Your task to perform on an android device: move an email to a new category in the gmail app Image 0: 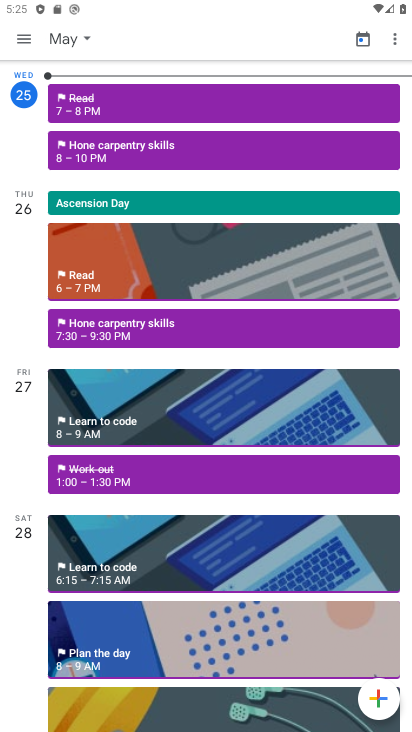
Step 0: press home button
Your task to perform on an android device: move an email to a new category in the gmail app Image 1: 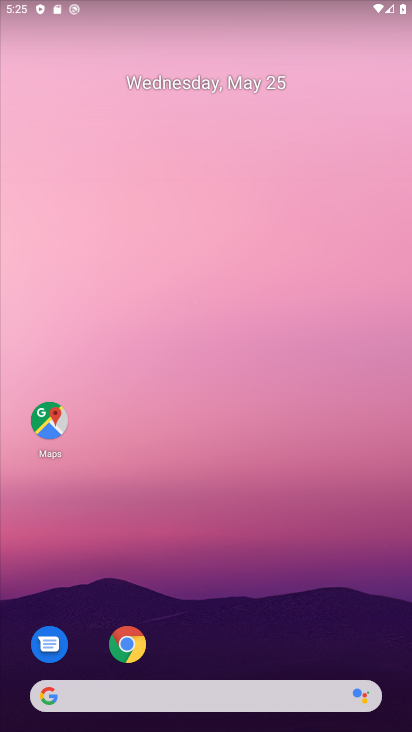
Step 1: drag from (230, 627) to (324, 230)
Your task to perform on an android device: move an email to a new category in the gmail app Image 2: 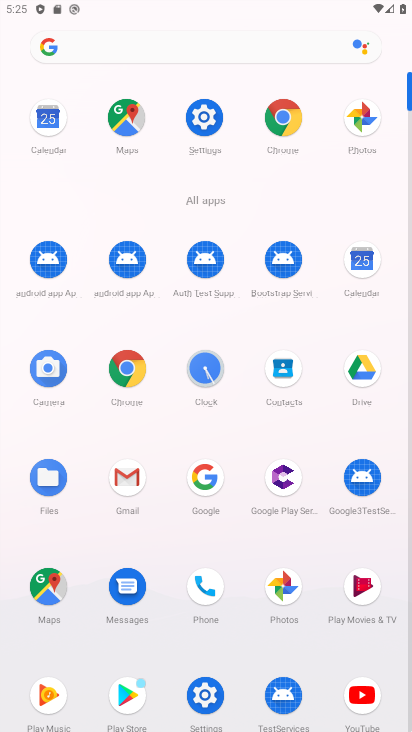
Step 2: click (122, 473)
Your task to perform on an android device: move an email to a new category in the gmail app Image 3: 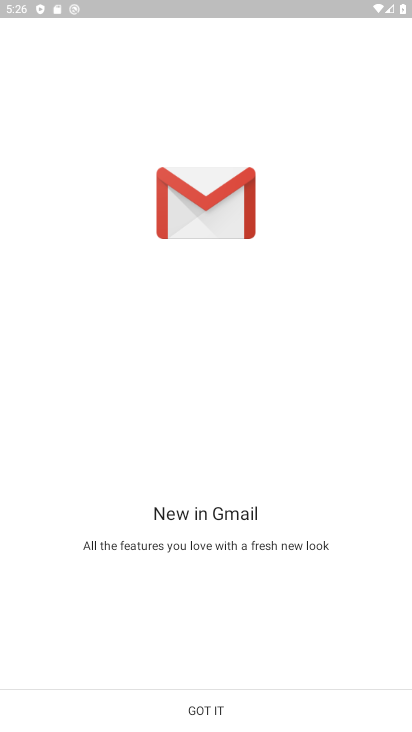
Step 3: click (207, 704)
Your task to perform on an android device: move an email to a new category in the gmail app Image 4: 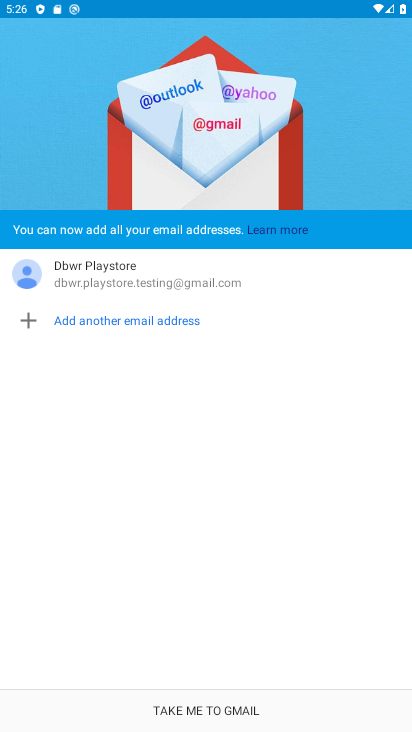
Step 4: click (207, 704)
Your task to perform on an android device: move an email to a new category in the gmail app Image 5: 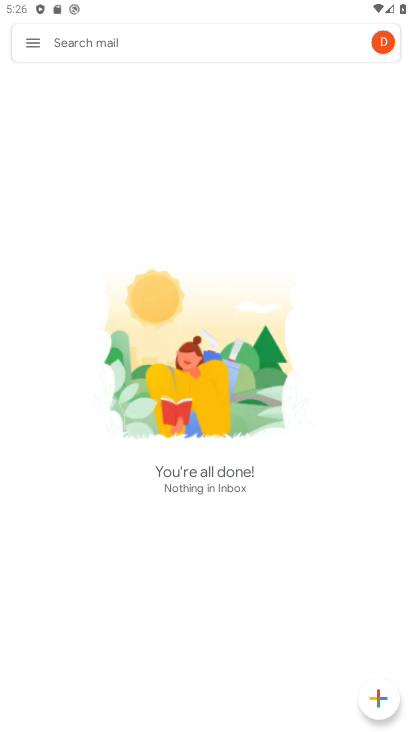
Step 5: click (29, 45)
Your task to perform on an android device: move an email to a new category in the gmail app Image 6: 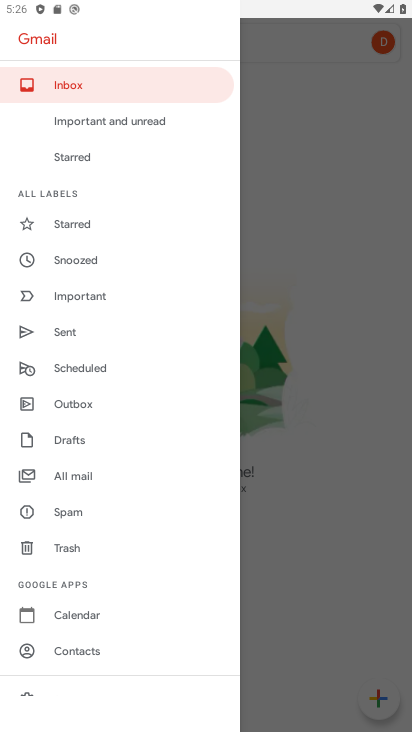
Step 6: task complete